Your task to perform on an android device: Open eBay Image 0: 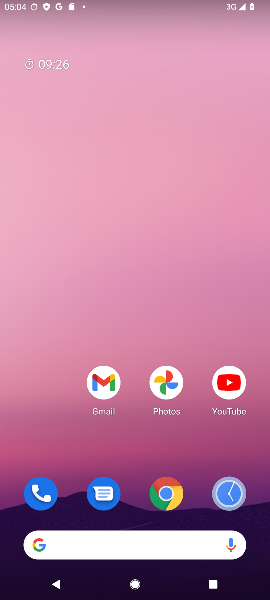
Step 0: press home button
Your task to perform on an android device: Open eBay Image 1: 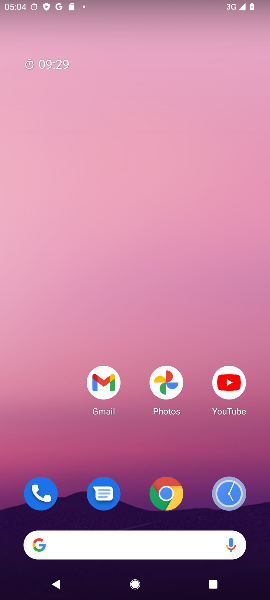
Step 1: drag from (42, 447) to (96, 149)
Your task to perform on an android device: Open eBay Image 2: 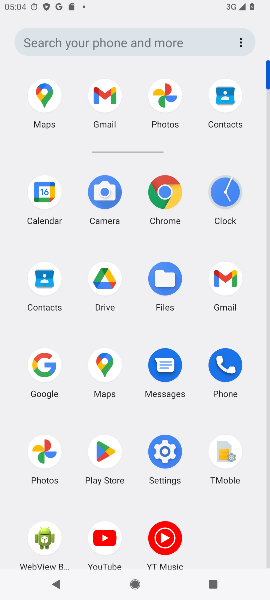
Step 2: click (166, 197)
Your task to perform on an android device: Open eBay Image 3: 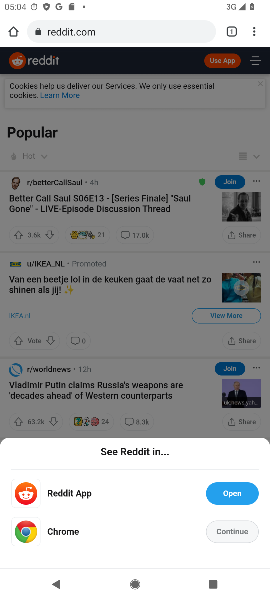
Step 3: click (121, 30)
Your task to perform on an android device: Open eBay Image 4: 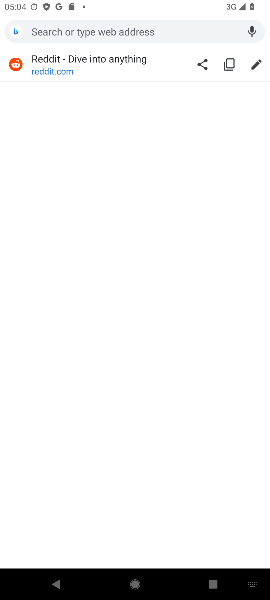
Step 4: type "ebay"
Your task to perform on an android device: Open eBay Image 5: 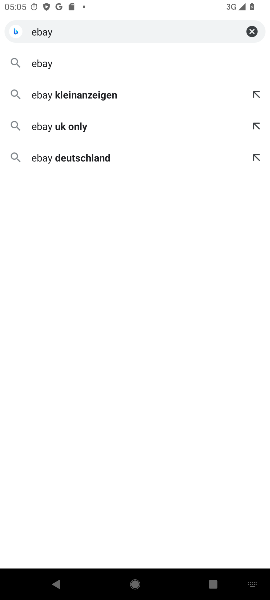
Step 5: click (67, 67)
Your task to perform on an android device: Open eBay Image 6: 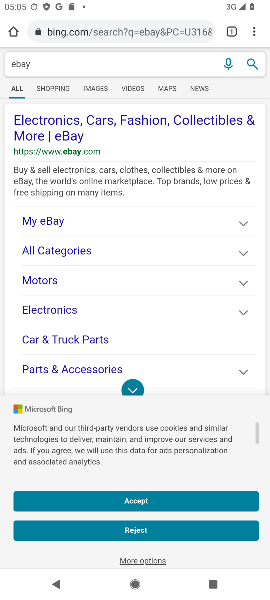
Step 6: task complete